Your task to perform on an android device: empty trash in the gmail app Image 0: 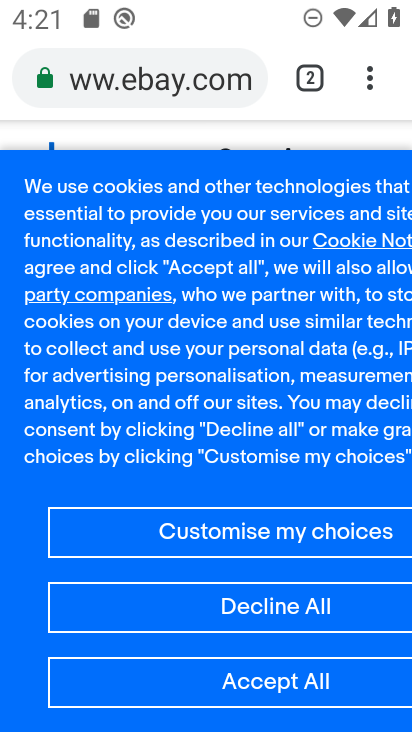
Step 0: press home button
Your task to perform on an android device: empty trash in the gmail app Image 1: 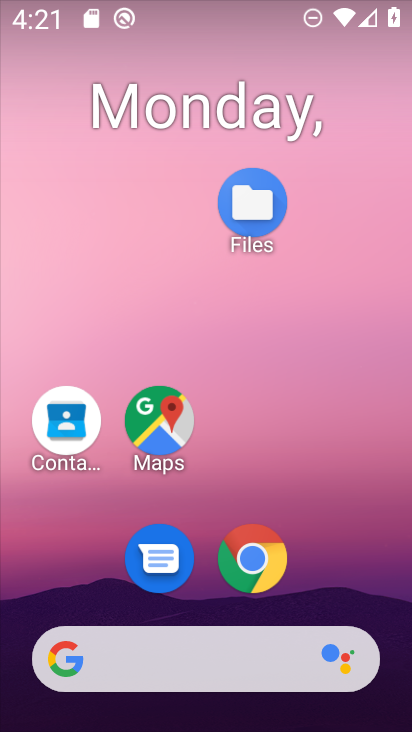
Step 1: drag from (220, 657) to (214, 163)
Your task to perform on an android device: empty trash in the gmail app Image 2: 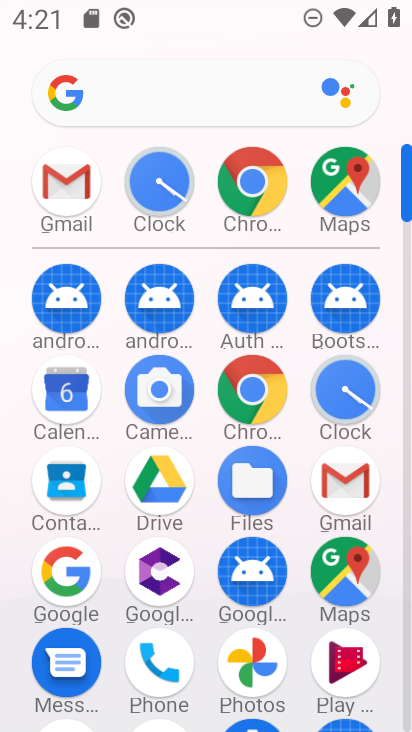
Step 2: click (359, 494)
Your task to perform on an android device: empty trash in the gmail app Image 3: 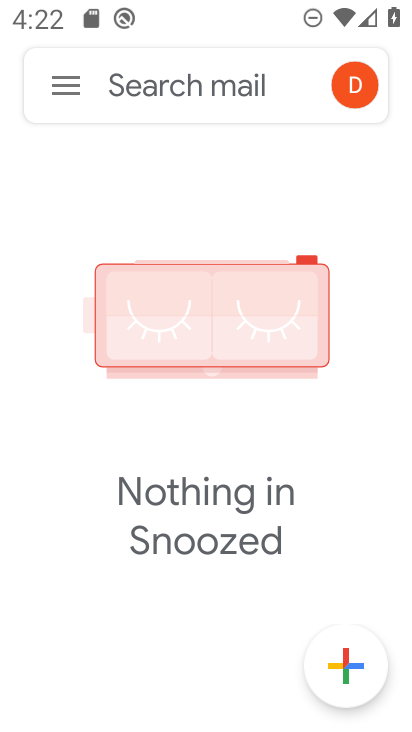
Step 3: click (71, 113)
Your task to perform on an android device: empty trash in the gmail app Image 4: 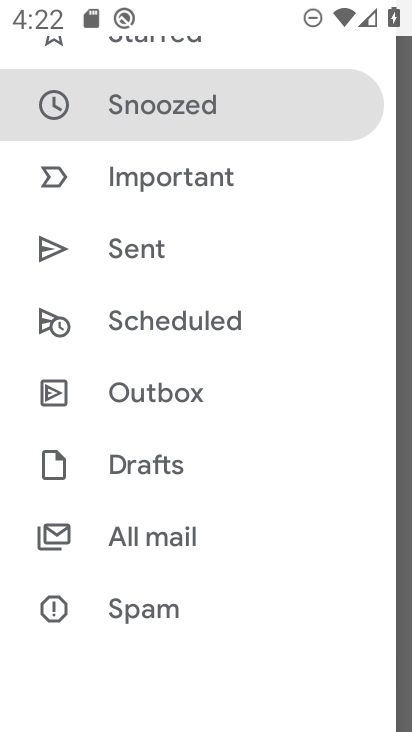
Step 4: drag from (178, 496) to (190, 218)
Your task to perform on an android device: empty trash in the gmail app Image 5: 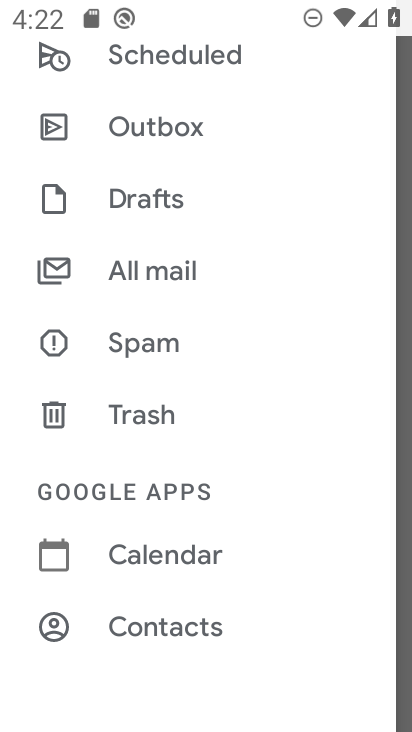
Step 5: click (173, 408)
Your task to perform on an android device: empty trash in the gmail app Image 6: 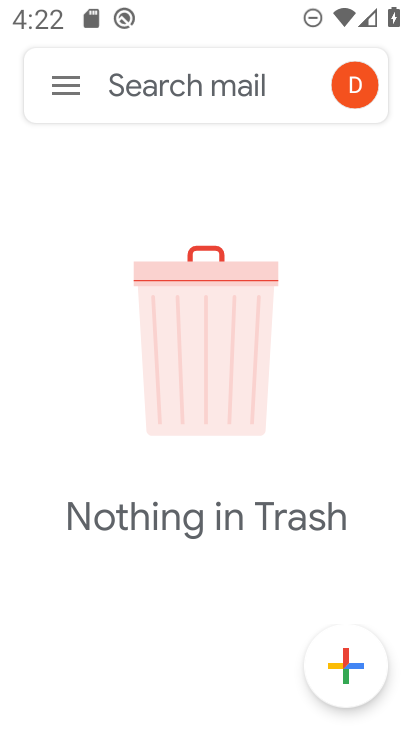
Step 6: task complete